Your task to perform on an android device: Go to sound settings Image 0: 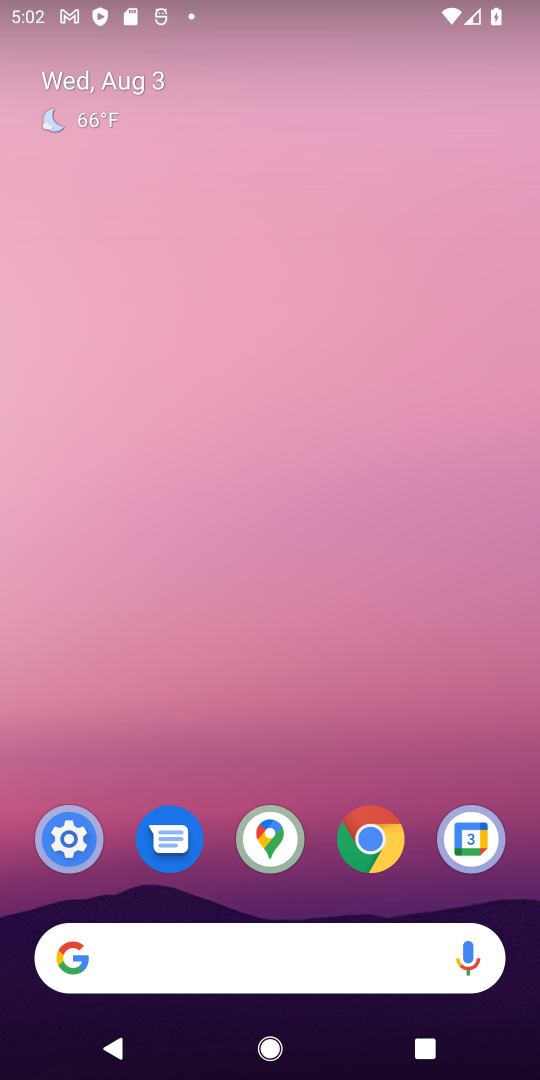
Step 0: click (67, 844)
Your task to perform on an android device: Go to sound settings Image 1: 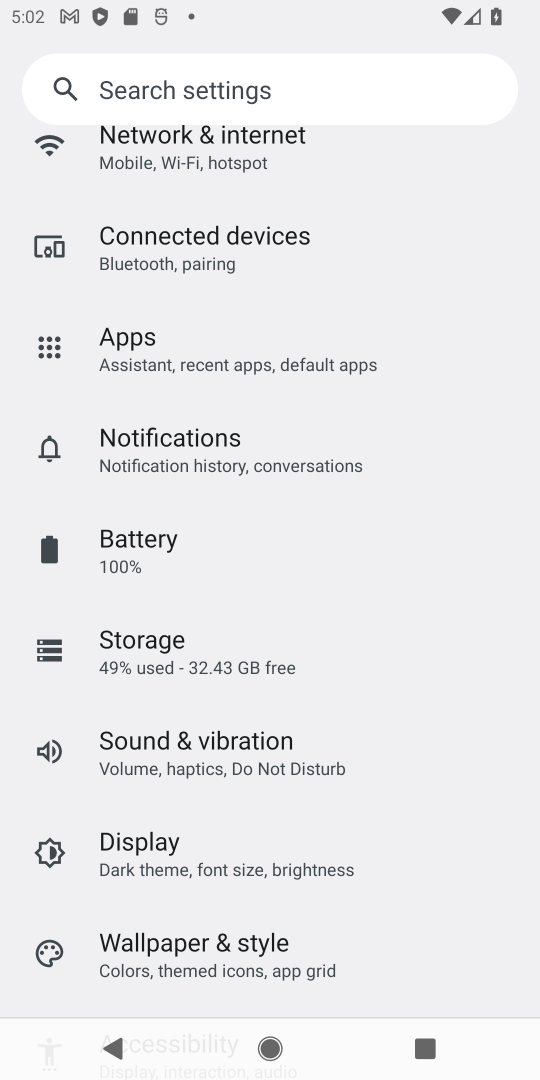
Step 1: drag from (241, 343) to (223, 955)
Your task to perform on an android device: Go to sound settings Image 2: 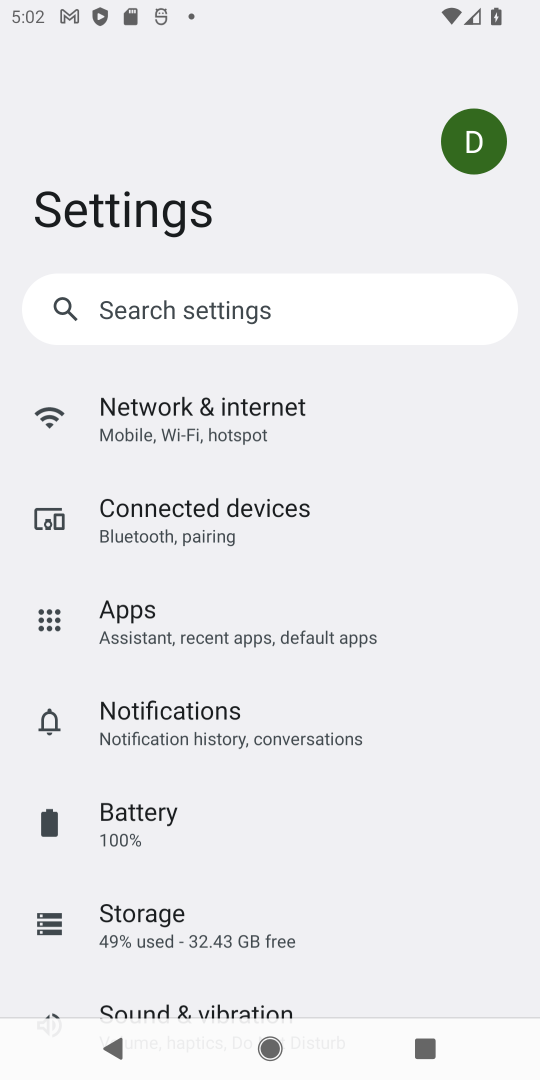
Step 2: drag from (209, 870) to (292, 219)
Your task to perform on an android device: Go to sound settings Image 3: 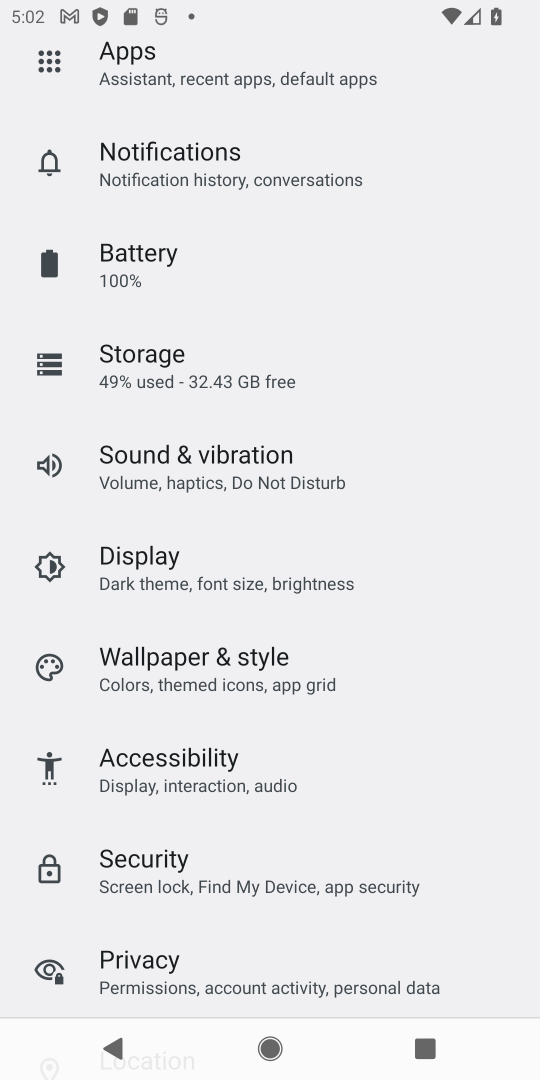
Step 3: drag from (197, 267) to (205, 915)
Your task to perform on an android device: Go to sound settings Image 4: 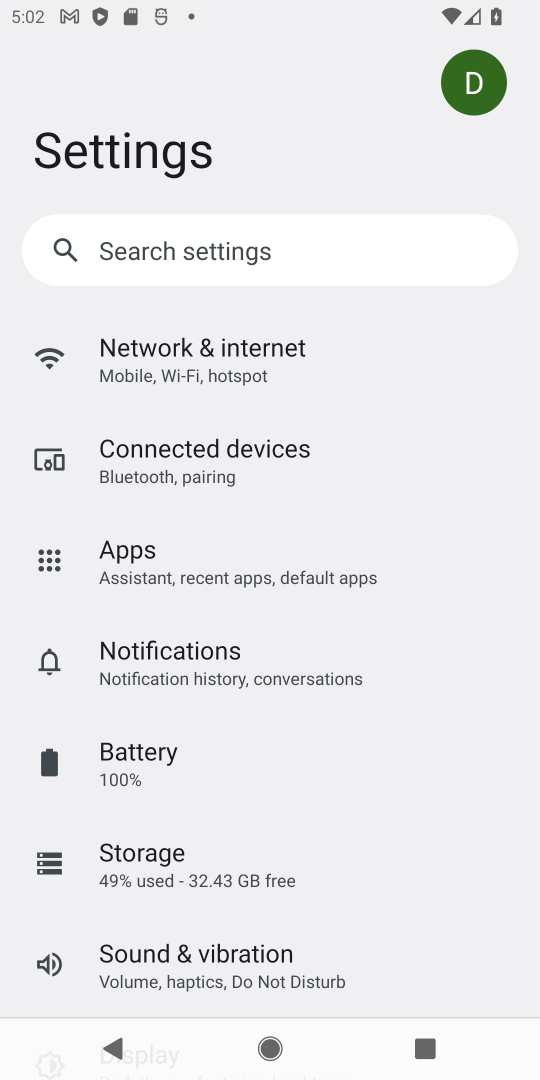
Step 4: click (184, 957)
Your task to perform on an android device: Go to sound settings Image 5: 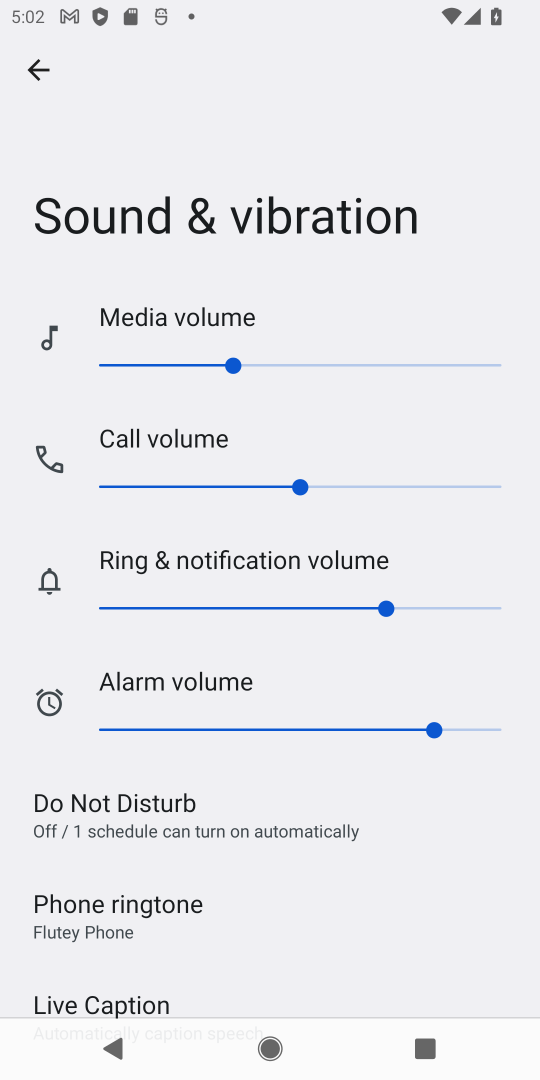
Step 5: task complete